Your task to perform on an android device: add a contact Image 0: 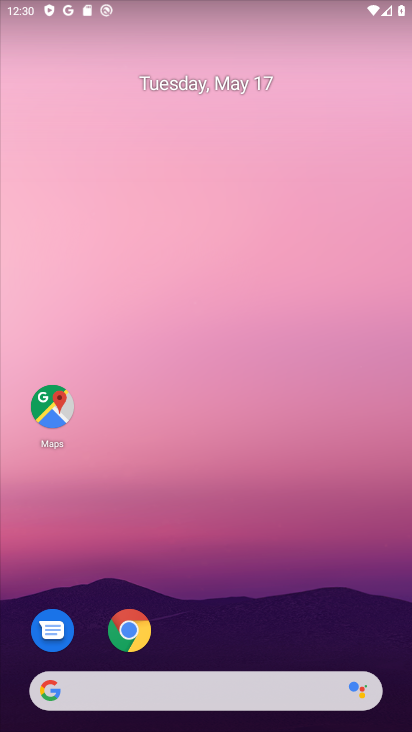
Step 0: drag from (215, 621) to (149, 68)
Your task to perform on an android device: add a contact Image 1: 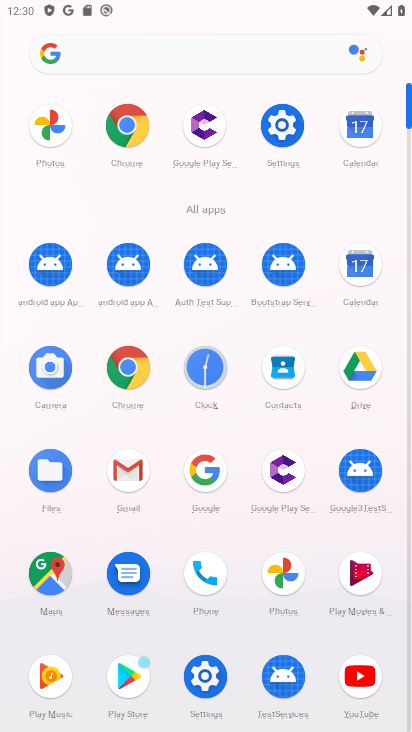
Step 1: click (293, 148)
Your task to perform on an android device: add a contact Image 2: 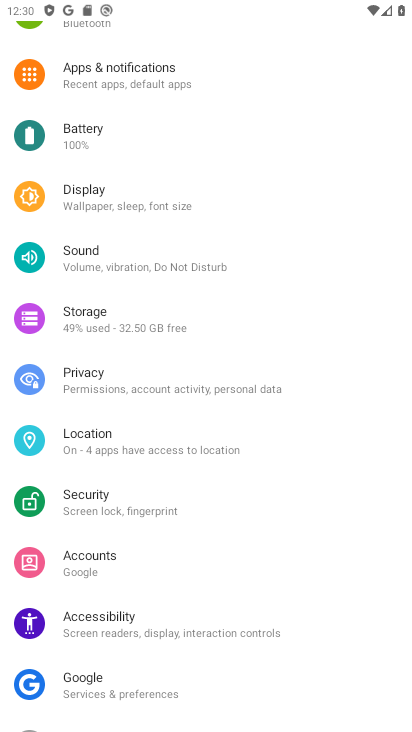
Step 2: press home button
Your task to perform on an android device: add a contact Image 3: 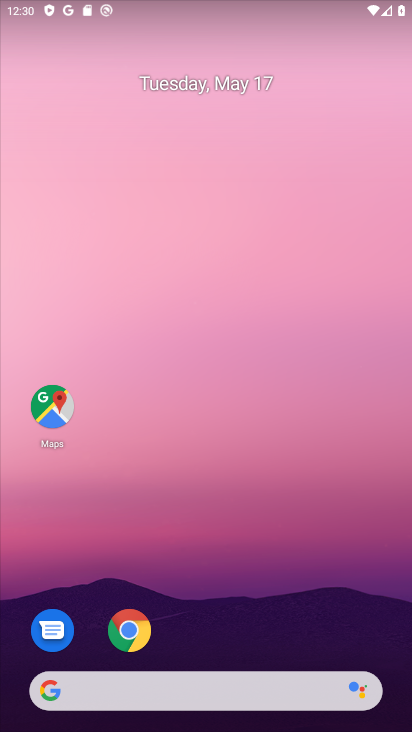
Step 3: drag from (293, 596) to (246, 105)
Your task to perform on an android device: add a contact Image 4: 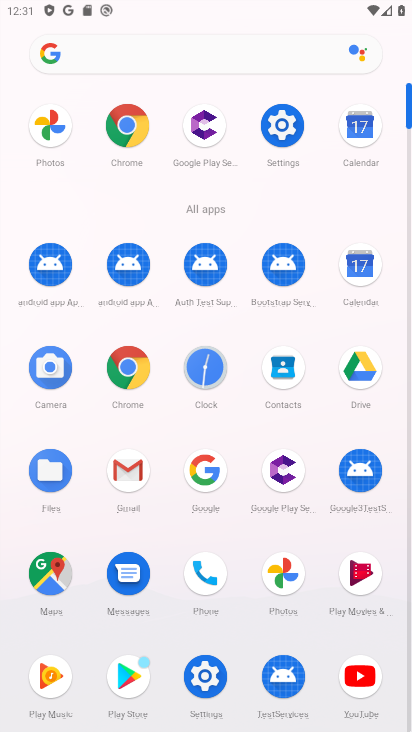
Step 4: click (207, 591)
Your task to perform on an android device: add a contact Image 5: 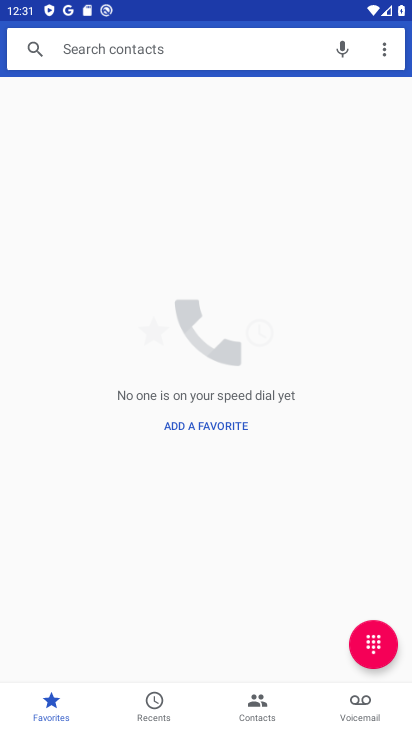
Step 5: click (268, 682)
Your task to perform on an android device: add a contact Image 6: 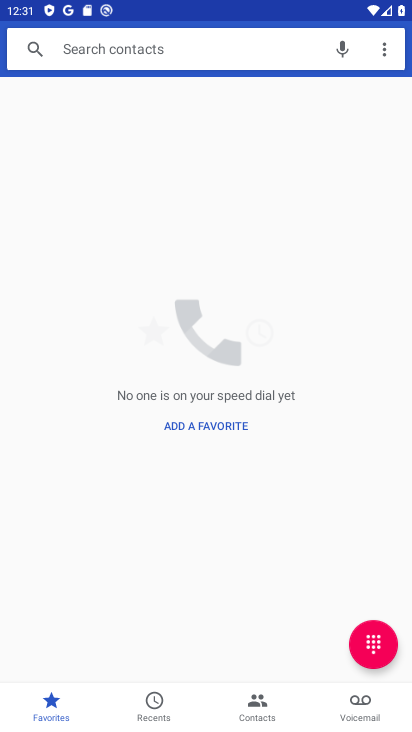
Step 6: click (259, 701)
Your task to perform on an android device: add a contact Image 7: 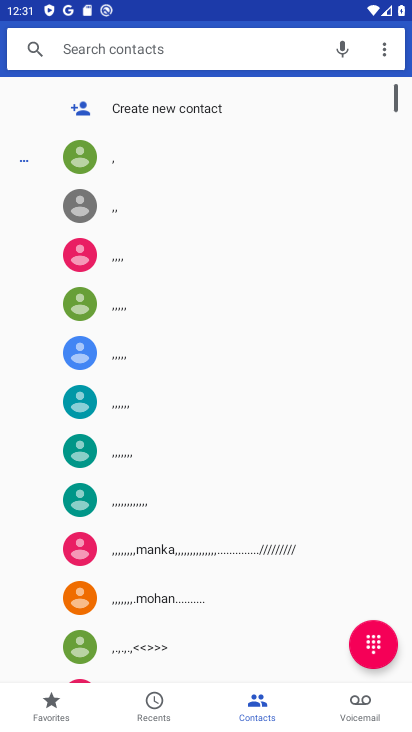
Step 7: click (394, 101)
Your task to perform on an android device: add a contact Image 8: 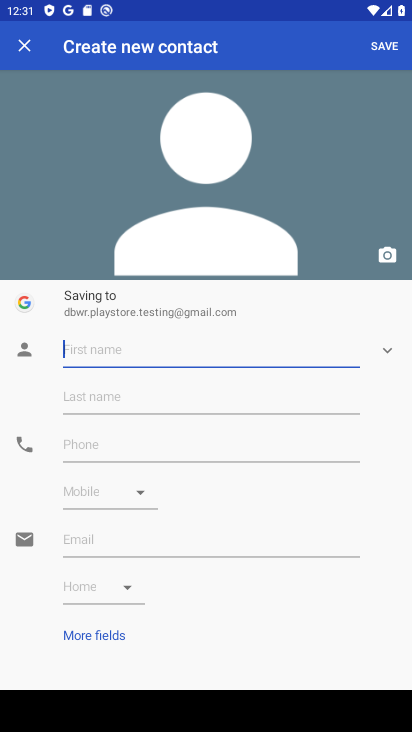
Step 8: type "weds"
Your task to perform on an android device: add a contact Image 9: 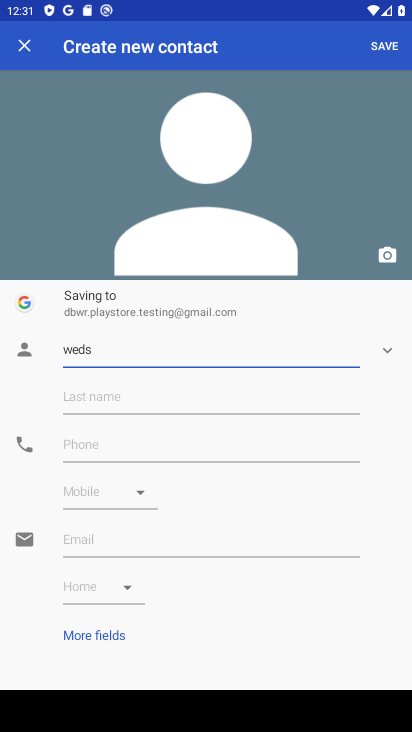
Step 9: click (131, 392)
Your task to perform on an android device: add a contact Image 10: 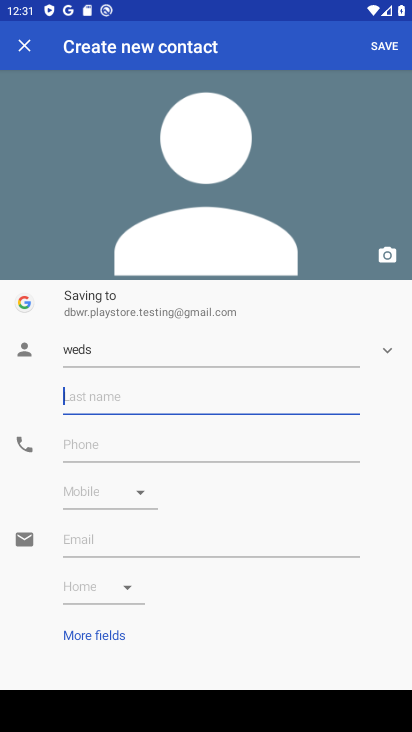
Step 10: type "adas"
Your task to perform on an android device: add a contact Image 11: 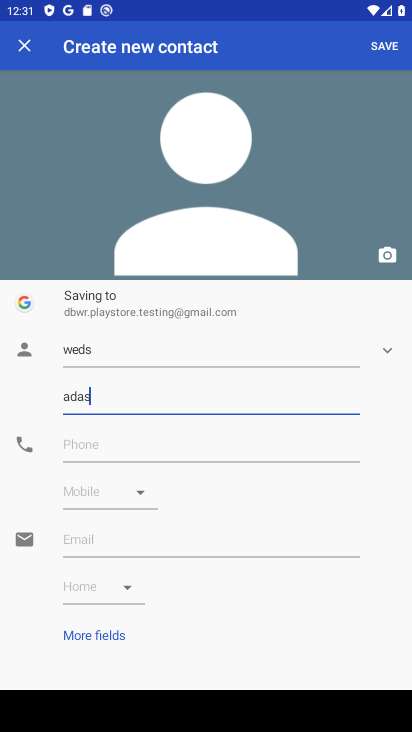
Step 11: click (185, 447)
Your task to perform on an android device: add a contact Image 12: 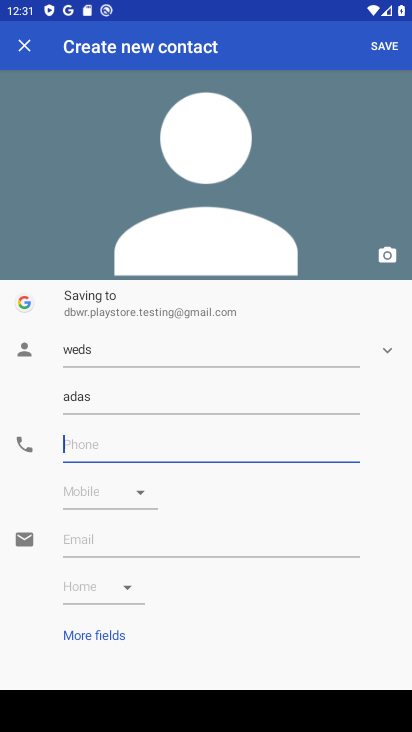
Step 12: type "332553234543"
Your task to perform on an android device: add a contact Image 13: 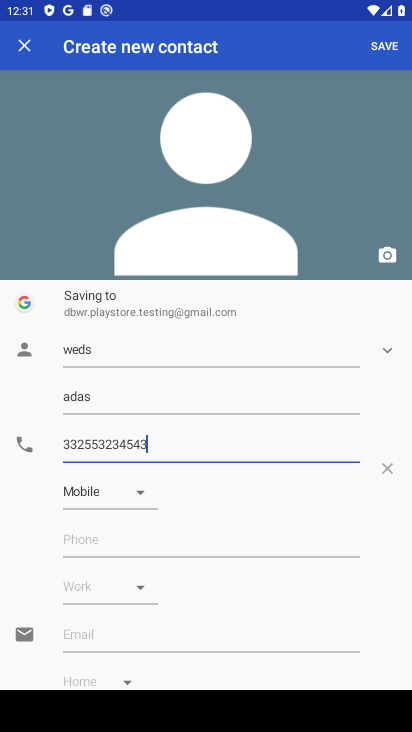
Step 13: click (388, 41)
Your task to perform on an android device: add a contact Image 14: 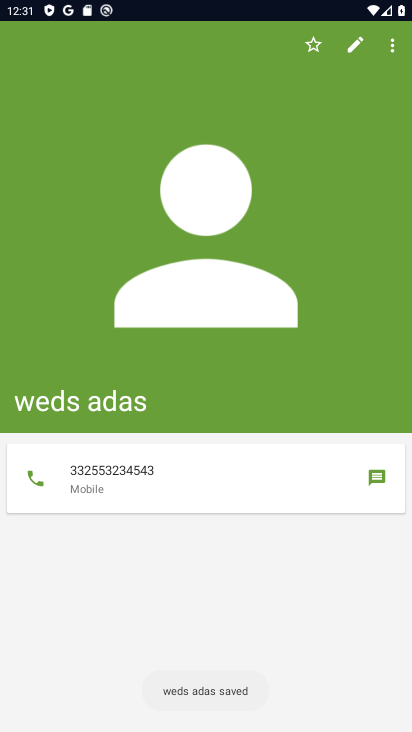
Step 14: task complete